Your task to perform on an android device: Go to Reddit.com Image 0: 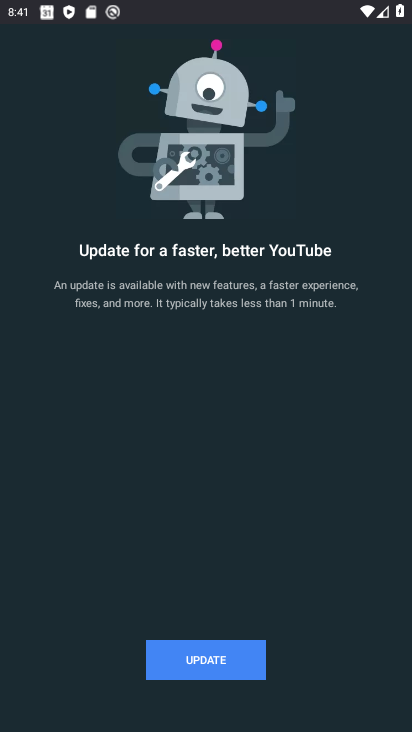
Step 0: press home button
Your task to perform on an android device: Go to Reddit.com Image 1: 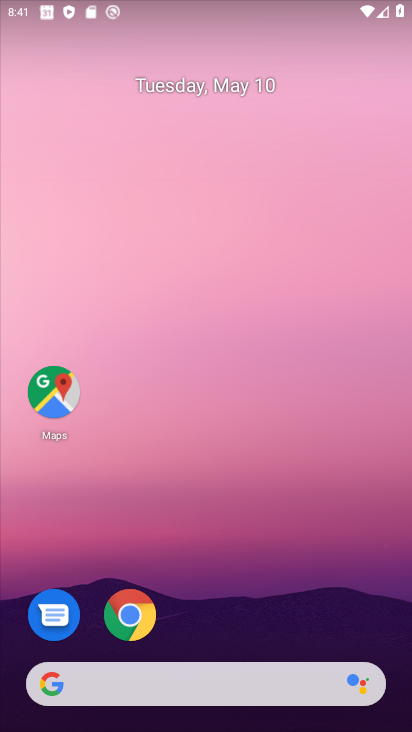
Step 1: click (178, 663)
Your task to perform on an android device: Go to Reddit.com Image 2: 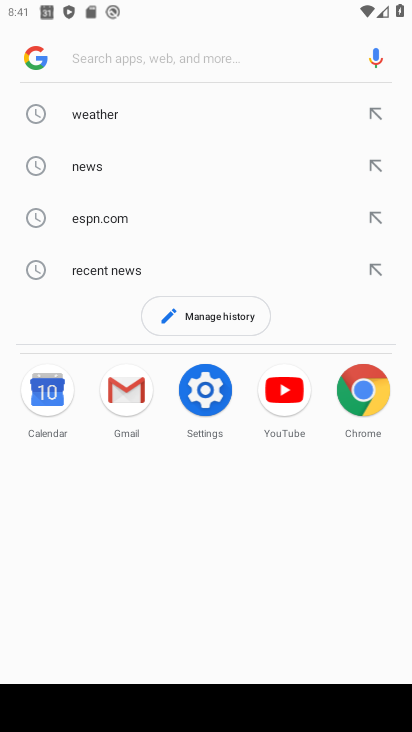
Step 2: type "reddit"
Your task to perform on an android device: Go to Reddit.com Image 3: 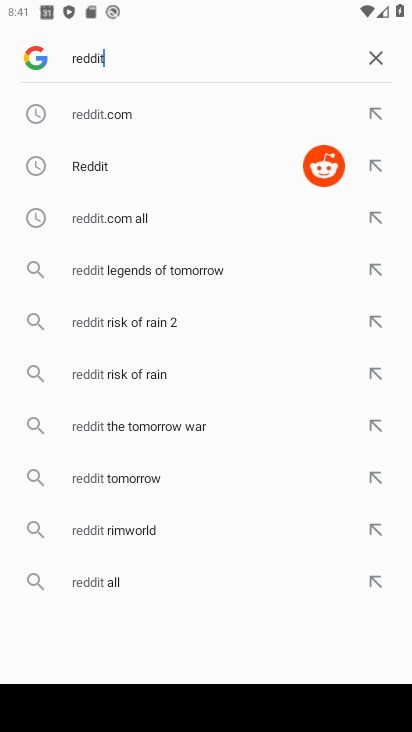
Step 3: click (124, 110)
Your task to perform on an android device: Go to Reddit.com Image 4: 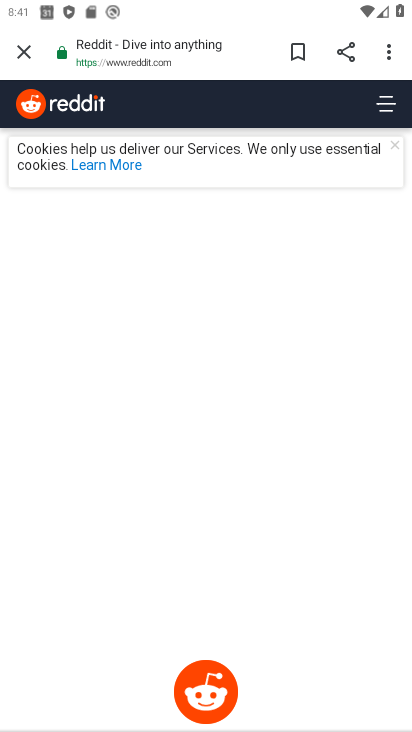
Step 4: task complete